Your task to perform on an android device: Go to battery settings Image 0: 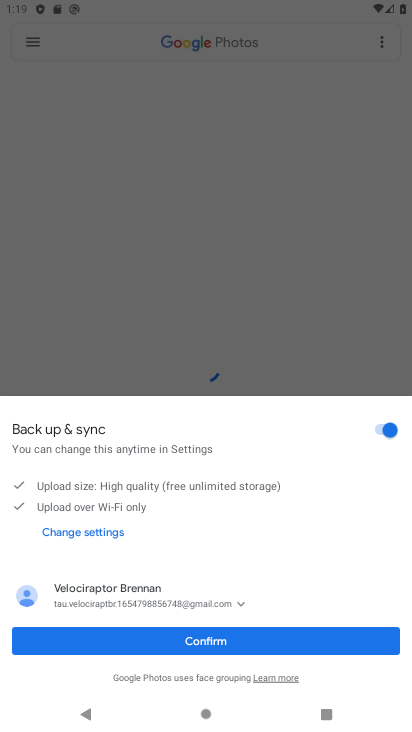
Step 0: press home button
Your task to perform on an android device: Go to battery settings Image 1: 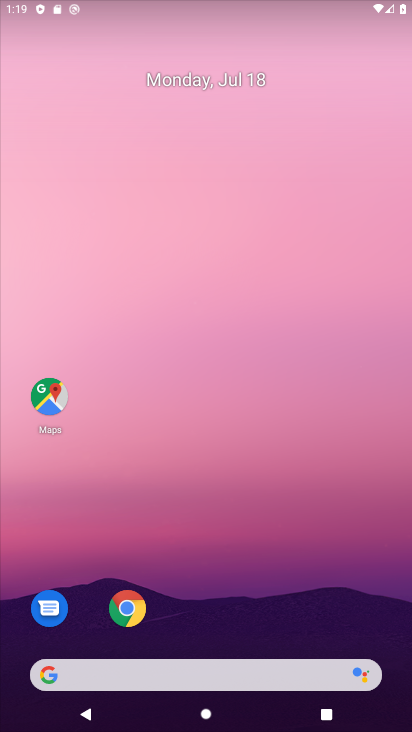
Step 1: drag from (229, 704) to (229, 161)
Your task to perform on an android device: Go to battery settings Image 2: 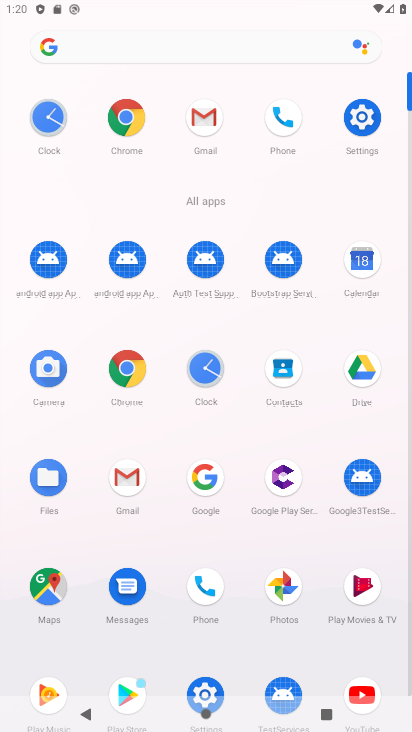
Step 2: click (356, 118)
Your task to perform on an android device: Go to battery settings Image 3: 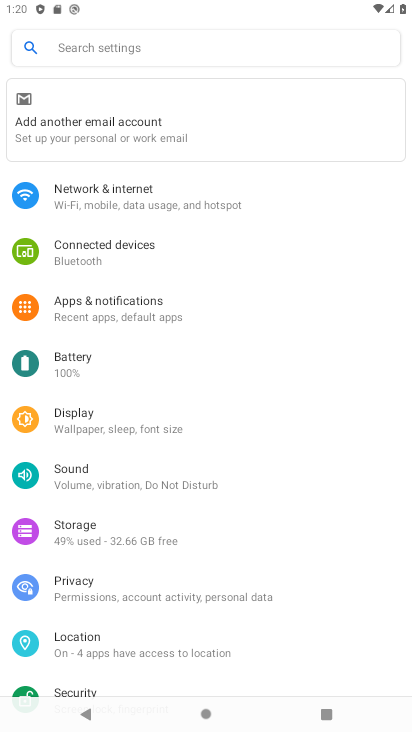
Step 3: click (69, 359)
Your task to perform on an android device: Go to battery settings Image 4: 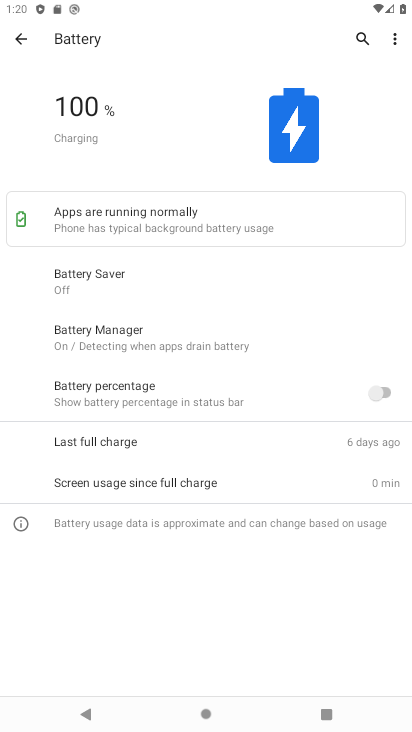
Step 4: task complete